Your task to perform on an android device: all mails in gmail Image 0: 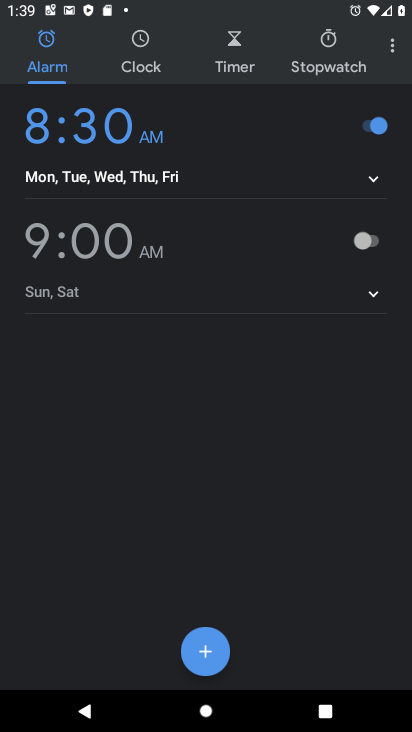
Step 0: press home button
Your task to perform on an android device: all mails in gmail Image 1: 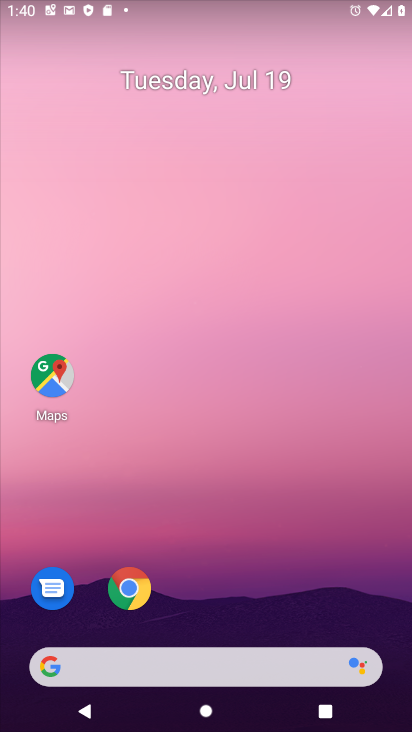
Step 1: drag from (325, 588) to (185, 27)
Your task to perform on an android device: all mails in gmail Image 2: 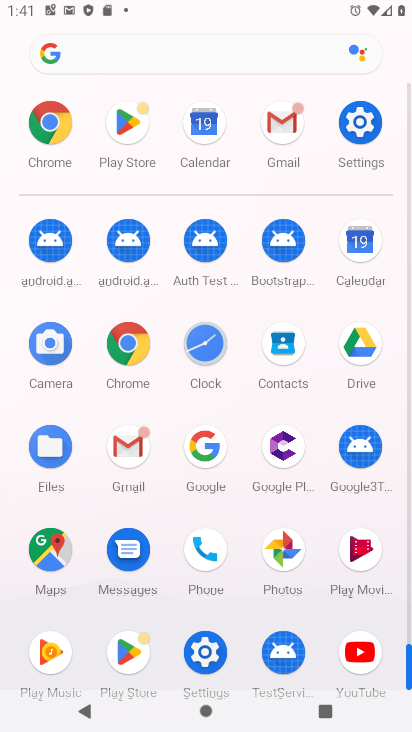
Step 2: click (113, 466)
Your task to perform on an android device: all mails in gmail Image 3: 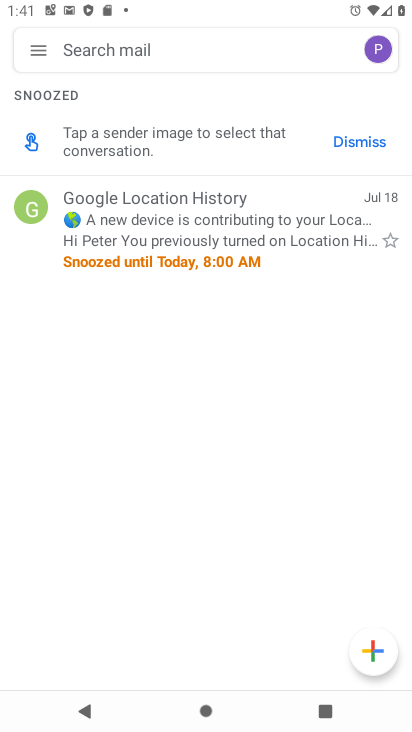
Step 3: click (39, 52)
Your task to perform on an android device: all mails in gmail Image 4: 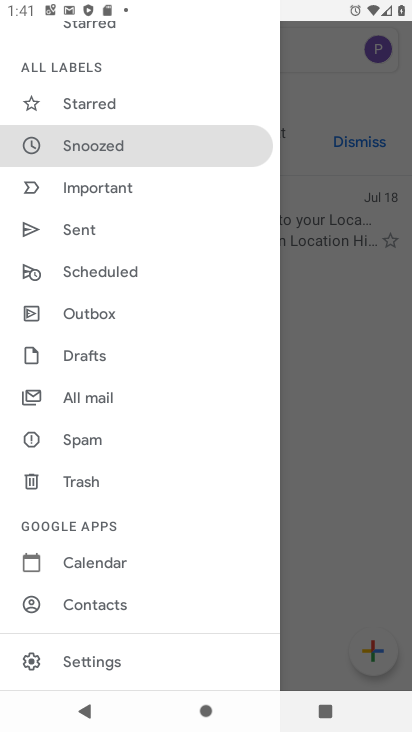
Step 4: click (102, 401)
Your task to perform on an android device: all mails in gmail Image 5: 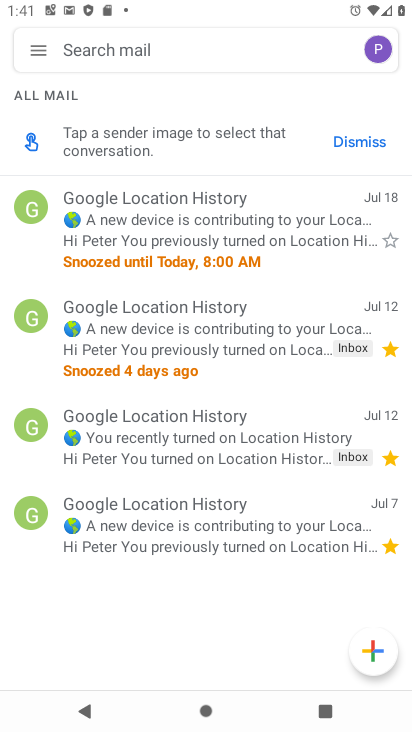
Step 5: task complete